Your task to perform on an android device: Search for vegetarian restaurants on Maps Image 0: 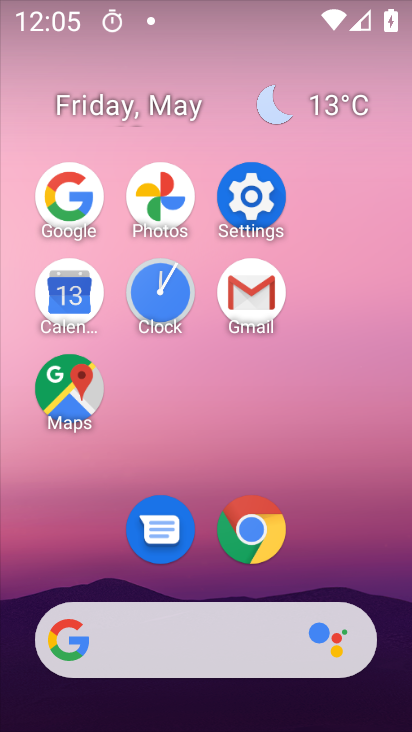
Step 0: click (87, 406)
Your task to perform on an android device: Search for vegetarian restaurants on Maps Image 1: 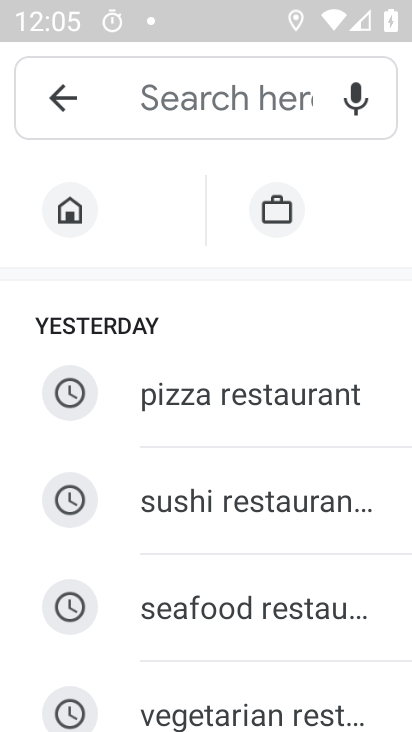
Step 1: click (288, 716)
Your task to perform on an android device: Search for vegetarian restaurants on Maps Image 2: 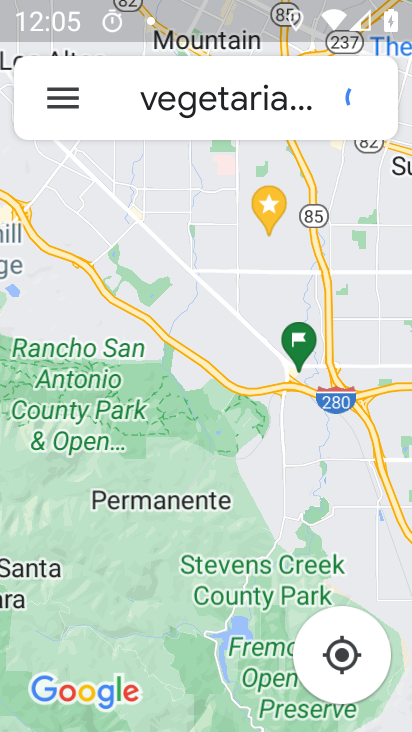
Step 2: task complete